Your task to perform on an android device: turn off wifi Image 0: 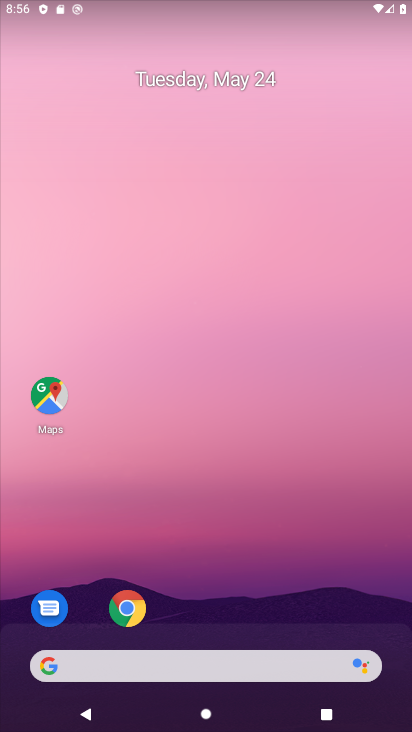
Step 0: press home button
Your task to perform on an android device: turn off wifi Image 1: 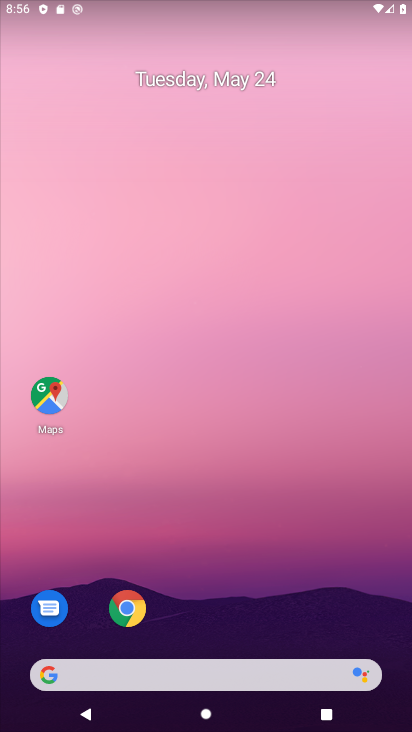
Step 1: drag from (298, 329) to (264, 54)
Your task to perform on an android device: turn off wifi Image 2: 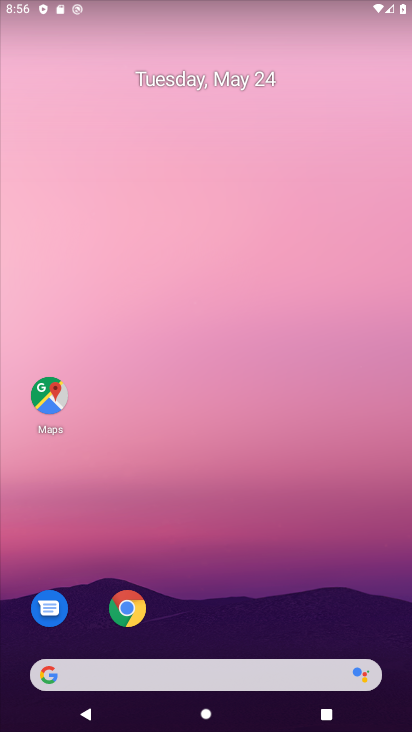
Step 2: drag from (275, 592) to (213, 0)
Your task to perform on an android device: turn off wifi Image 3: 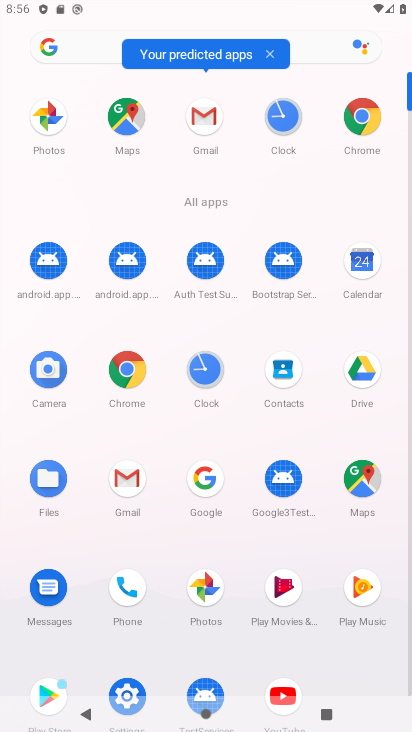
Step 3: click (128, 693)
Your task to perform on an android device: turn off wifi Image 4: 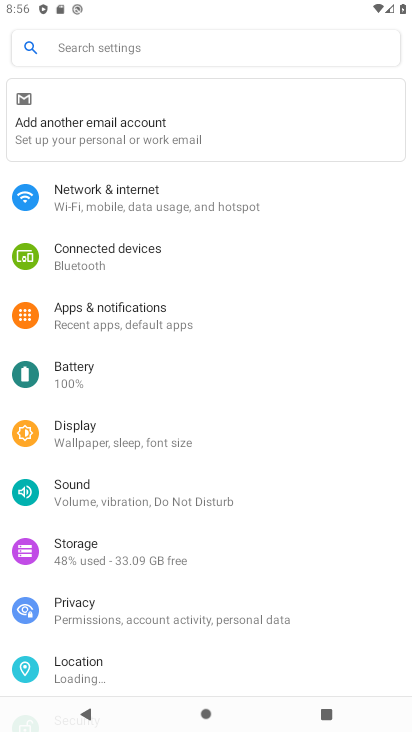
Step 4: click (153, 206)
Your task to perform on an android device: turn off wifi Image 5: 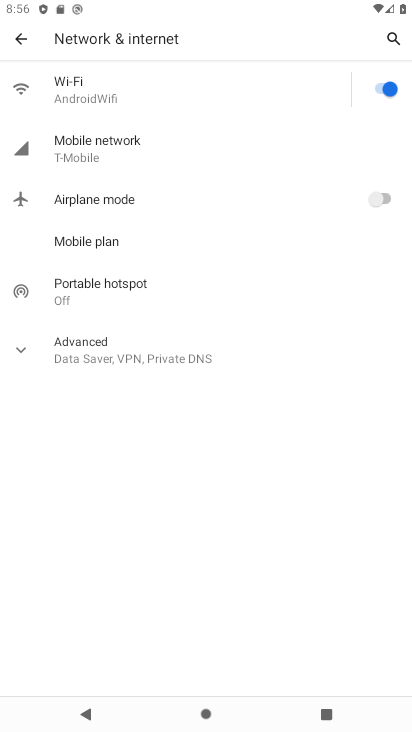
Step 5: click (382, 81)
Your task to perform on an android device: turn off wifi Image 6: 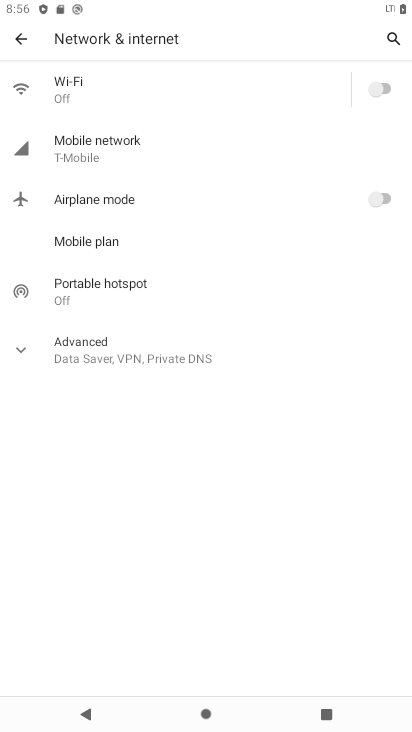
Step 6: task complete